Your task to perform on an android device: change notifications settings Image 0: 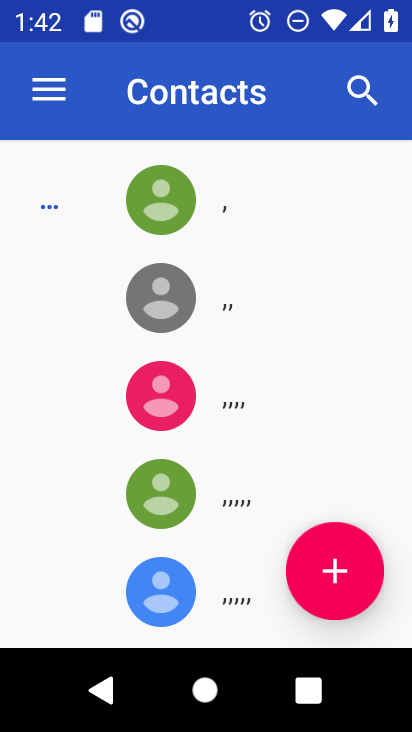
Step 0: press home button
Your task to perform on an android device: change notifications settings Image 1: 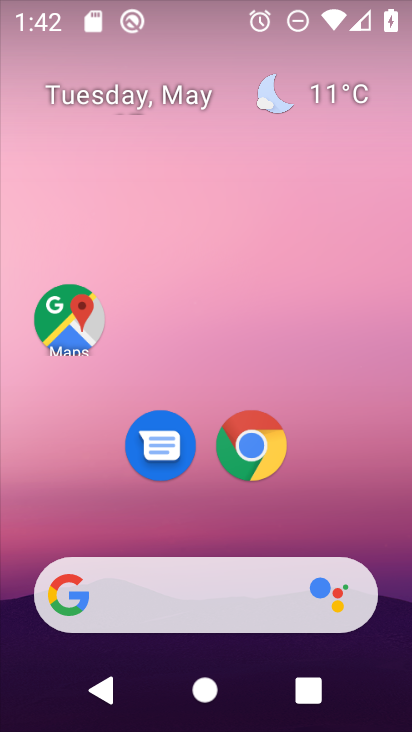
Step 1: drag from (332, 508) to (275, 74)
Your task to perform on an android device: change notifications settings Image 2: 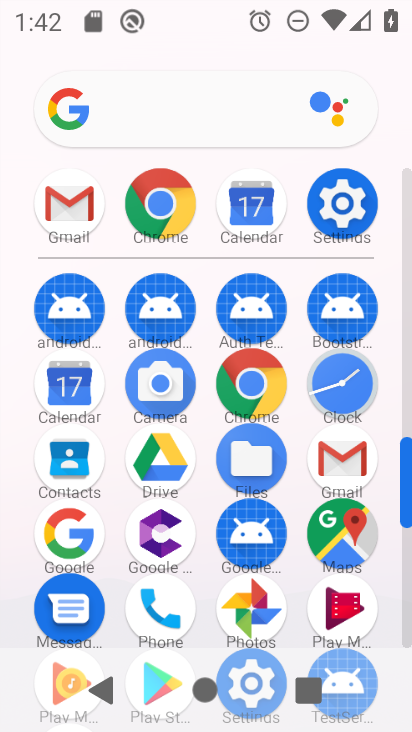
Step 2: click (345, 218)
Your task to perform on an android device: change notifications settings Image 3: 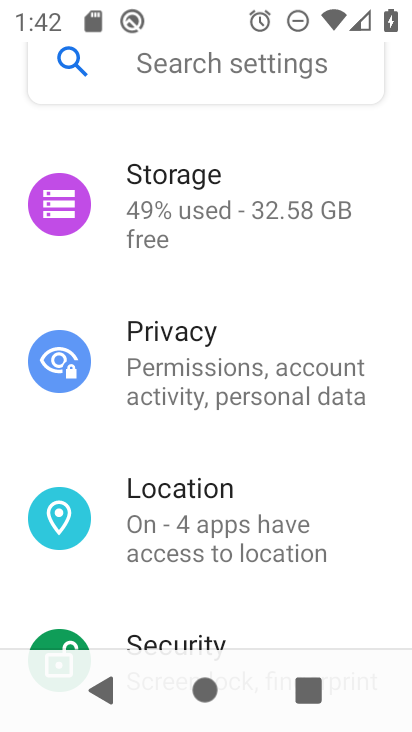
Step 3: drag from (282, 615) to (264, 678)
Your task to perform on an android device: change notifications settings Image 4: 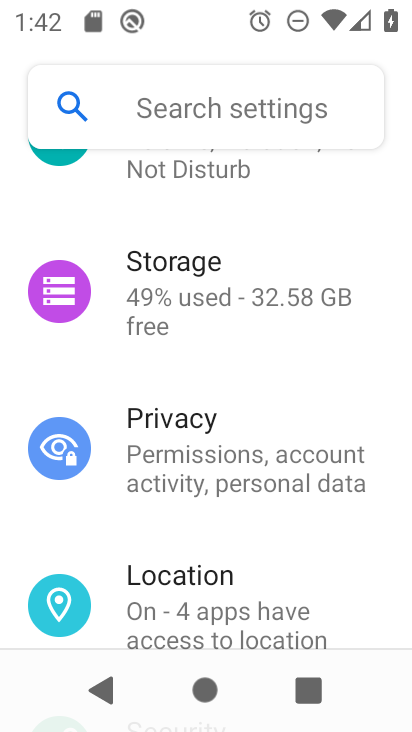
Step 4: drag from (210, 219) to (240, 715)
Your task to perform on an android device: change notifications settings Image 5: 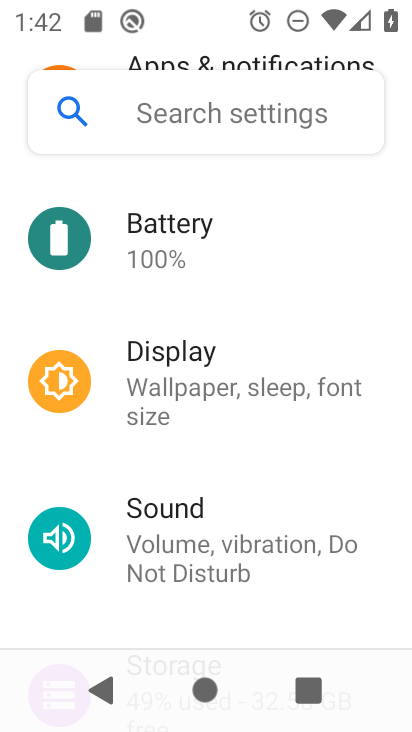
Step 5: drag from (187, 174) to (186, 510)
Your task to perform on an android device: change notifications settings Image 6: 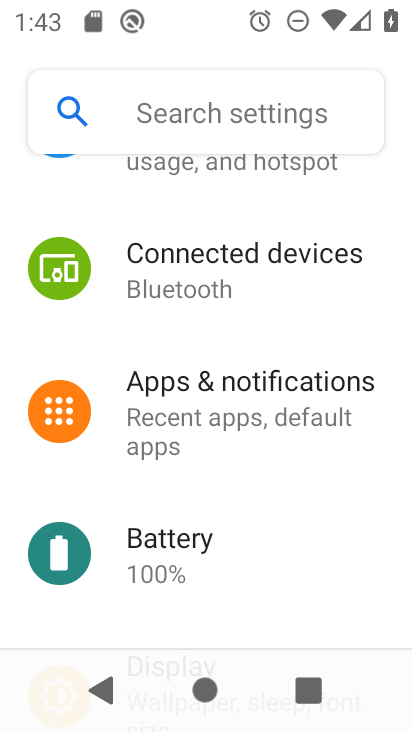
Step 6: click (214, 404)
Your task to perform on an android device: change notifications settings Image 7: 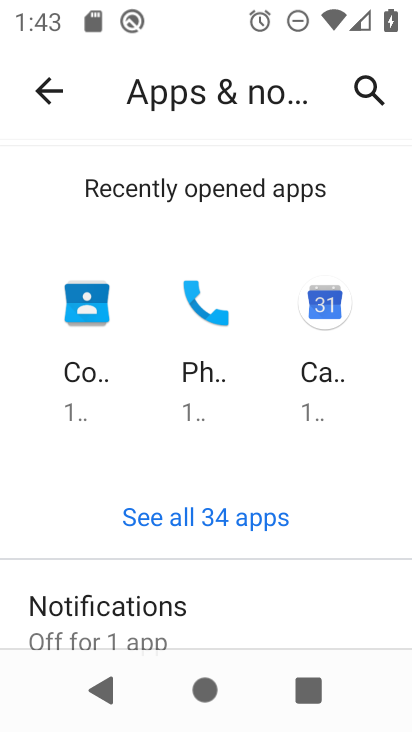
Step 7: click (156, 592)
Your task to perform on an android device: change notifications settings Image 8: 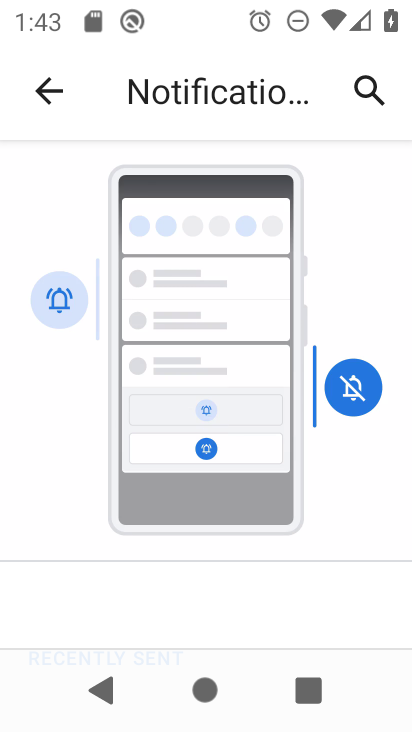
Step 8: drag from (246, 577) to (208, 204)
Your task to perform on an android device: change notifications settings Image 9: 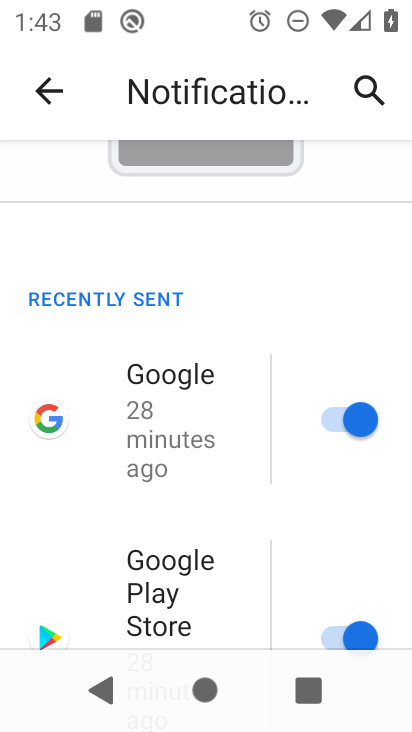
Step 9: drag from (260, 545) to (176, 10)
Your task to perform on an android device: change notifications settings Image 10: 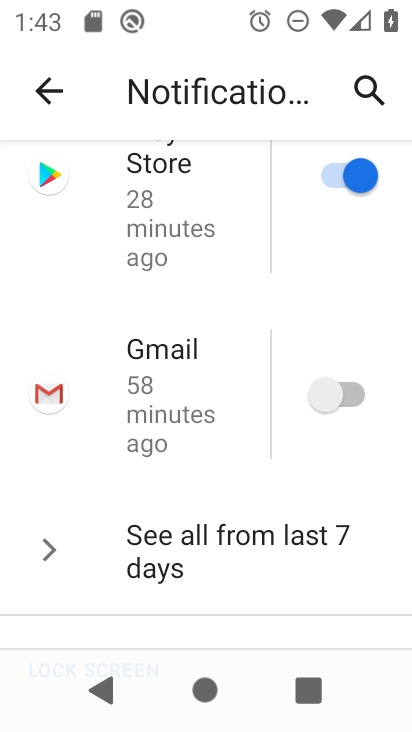
Step 10: drag from (247, 478) to (193, 153)
Your task to perform on an android device: change notifications settings Image 11: 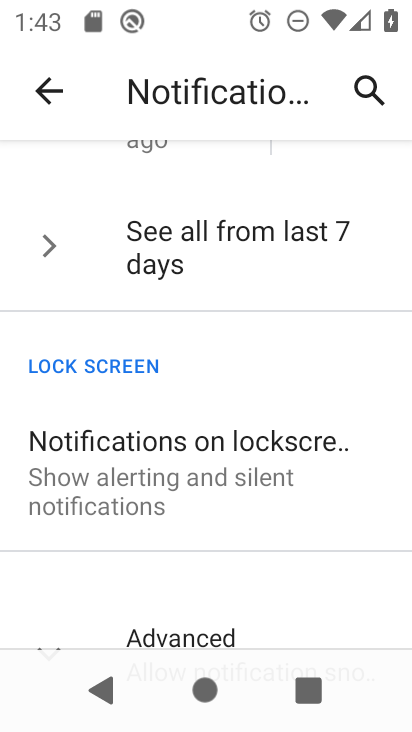
Step 11: drag from (259, 500) to (221, 217)
Your task to perform on an android device: change notifications settings Image 12: 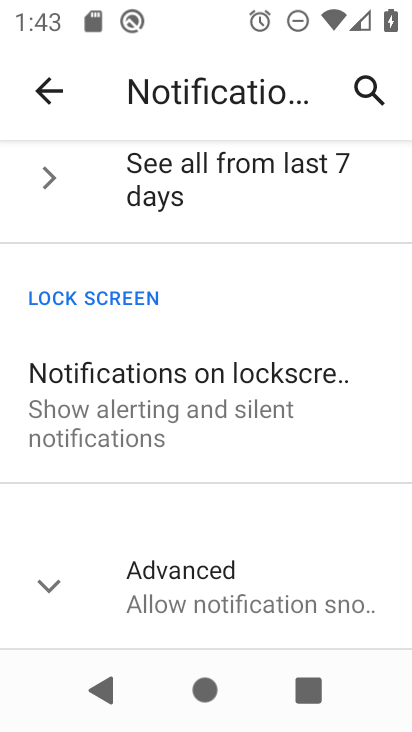
Step 12: click (194, 572)
Your task to perform on an android device: change notifications settings Image 13: 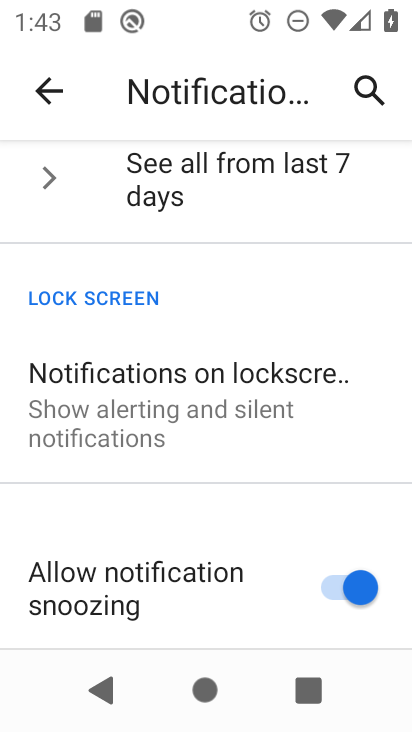
Step 13: click (338, 579)
Your task to perform on an android device: change notifications settings Image 14: 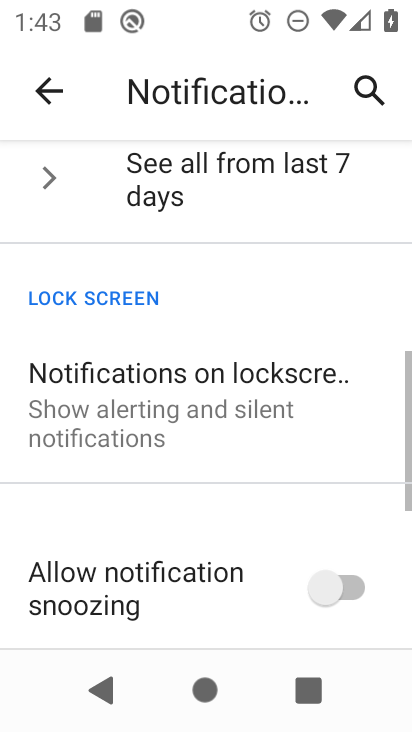
Step 14: drag from (338, 579) to (320, 318)
Your task to perform on an android device: change notifications settings Image 15: 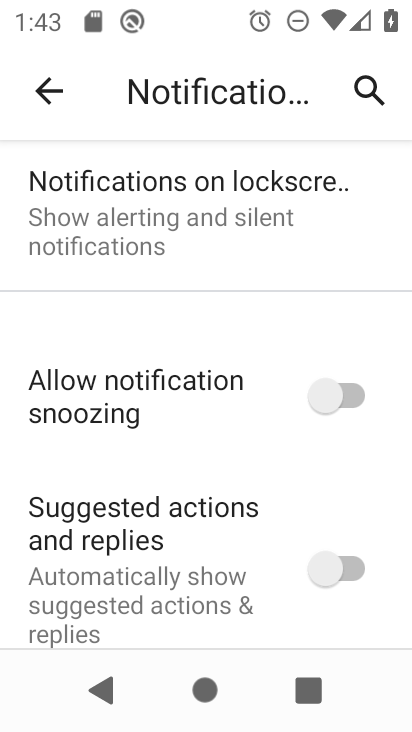
Step 15: click (342, 566)
Your task to perform on an android device: change notifications settings Image 16: 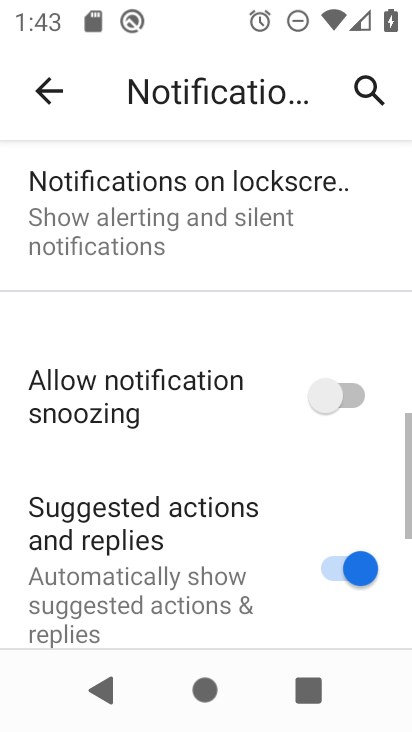
Step 16: drag from (299, 535) to (280, 197)
Your task to perform on an android device: change notifications settings Image 17: 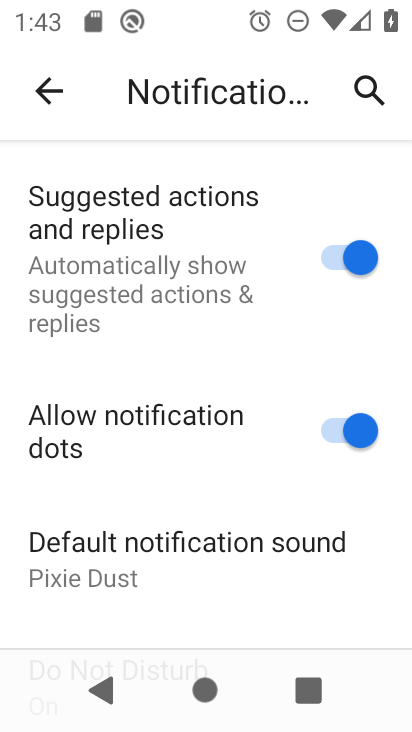
Step 17: click (348, 420)
Your task to perform on an android device: change notifications settings Image 18: 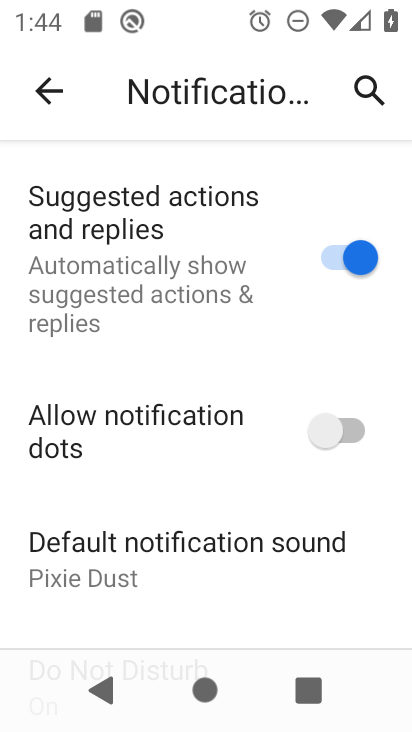
Step 18: task complete